Your task to perform on an android device: Open calendar and show me the second week of next month Image 0: 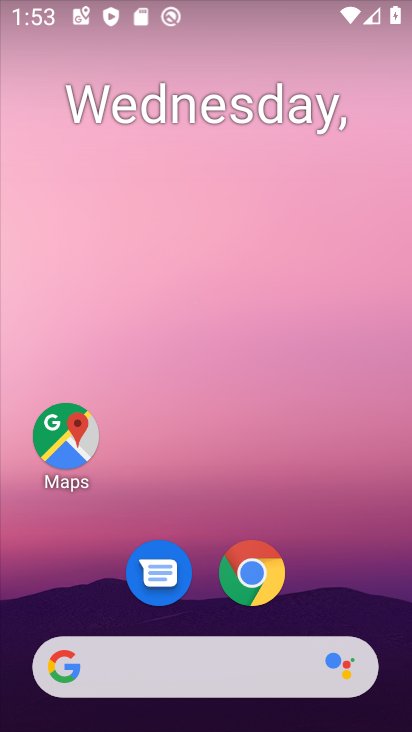
Step 0: drag from (206, 600) to (223, 117)
Your task to perform on an android device: Open calendar and show me the second week of next month Image 1: 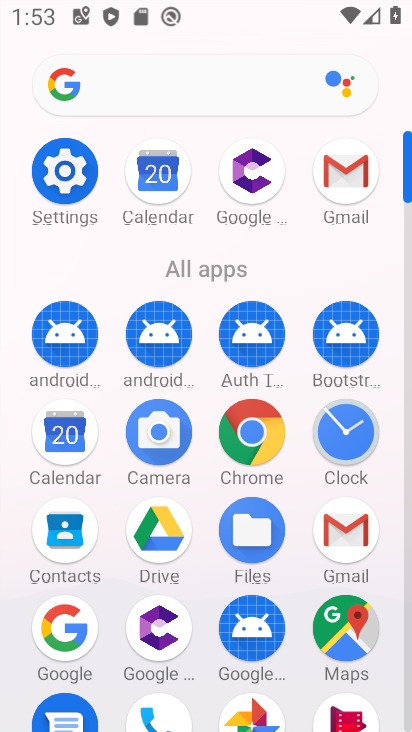
Step 1: click (59, 435)
Your task to perform on an android device: Open calendar and show me the second week of next month Image 2: 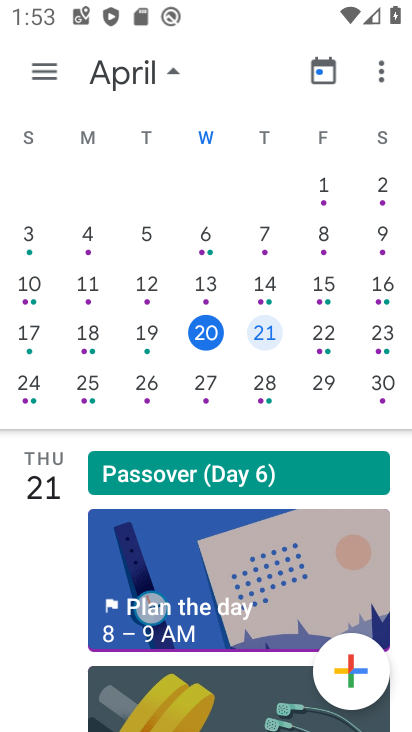
Step 2: drag from (320, 407) to (1, 422)
Your task to perform on an android device: Open calendar and show me the second week of next month Image 3: 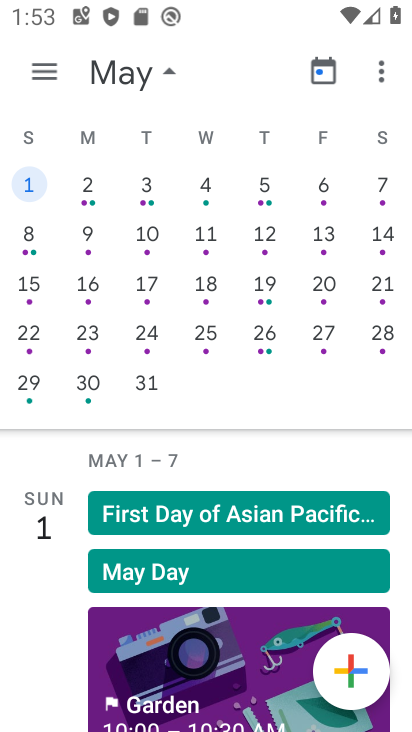
Step 3: click (147, 237)
Your task to perform on an android device: Open calendar and show me the second week of next month Image 4: 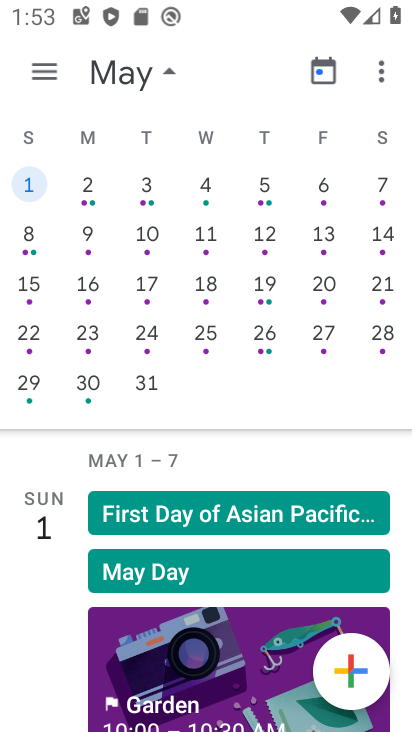
Step 4: click (152, 230)
Your task to perform on an android device: Open calendar and show me the second week of next month Image 5: 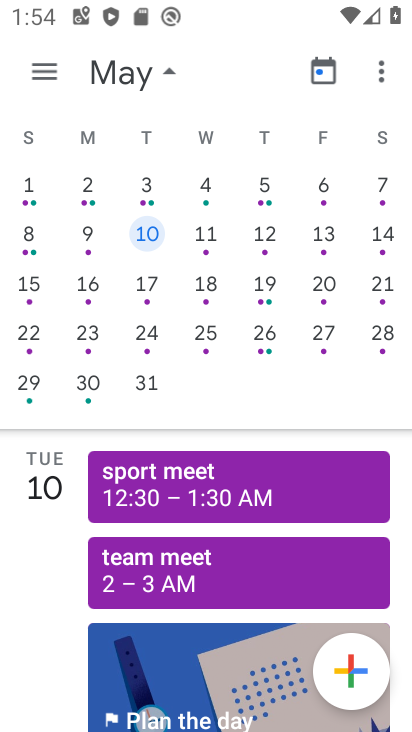
Step 5: task complete